Your task to perform on an android device: Open network settings Image 0: 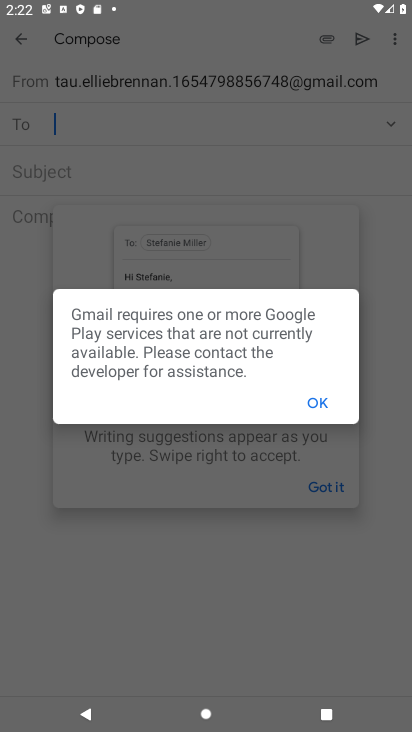
Step 0: press home button
Your task to perform on an android device: Open network settings Image 1: 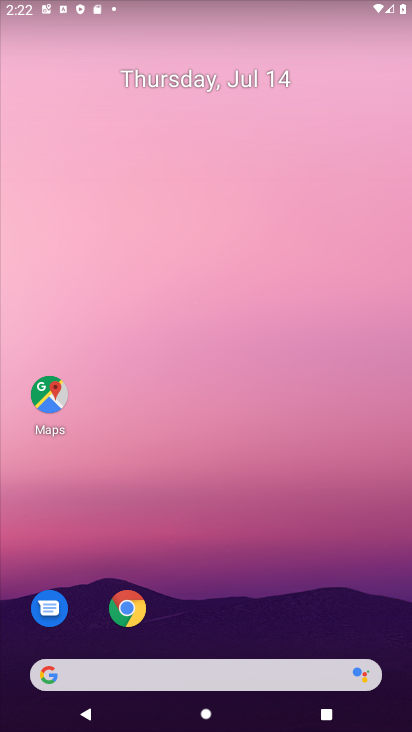
Step 1: drag from (385, 621) to (344, 106)
Your task to perform on an android device: Open network settings Image 2: 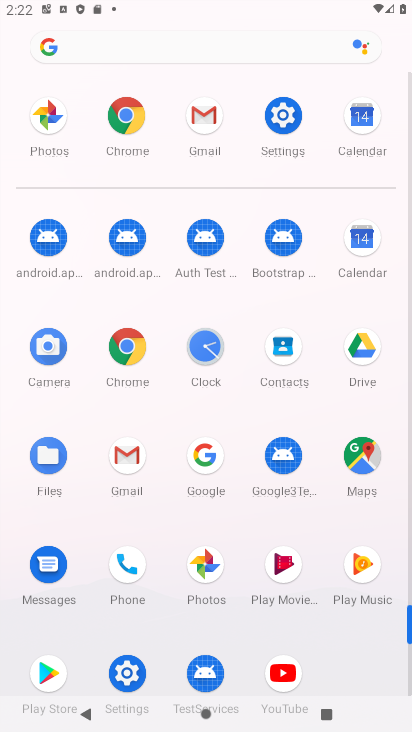
Step 2: click (127, 672)
Your task to perform on an android device: Open network settings Image 3: 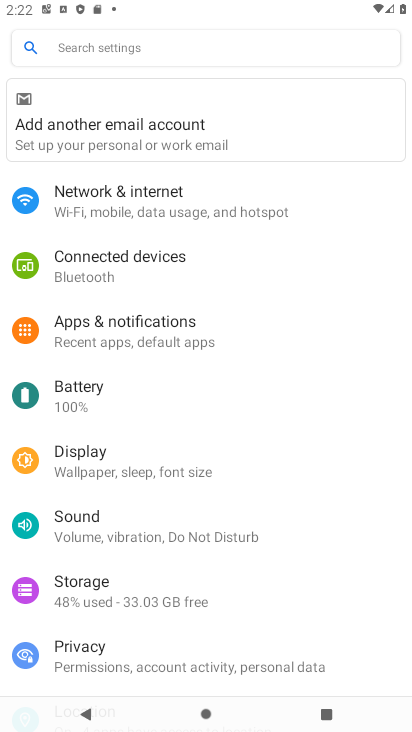
Step 3: click (113, 194)
Your task to perform on an android device: Open network settings Image 4: 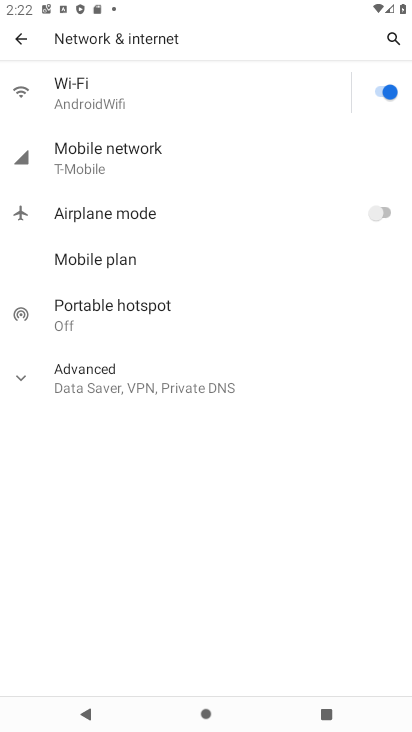
Step 4: click (84, 155)
Your task to perform on an android device: Open network settings Image 5: 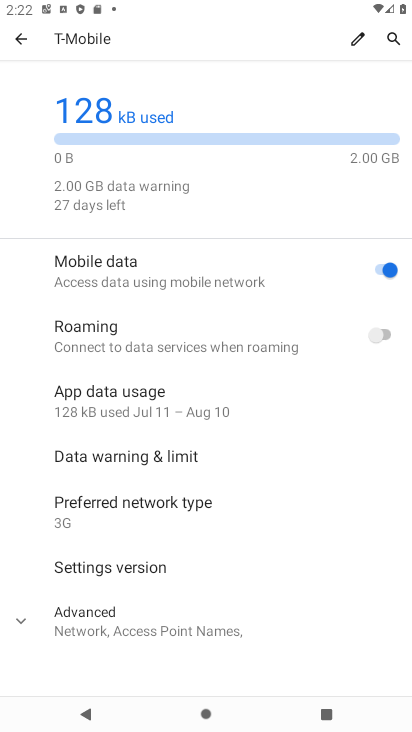
Step 5: click (19, 621)
Your task to perform on an android device: Open network settings Image 6: 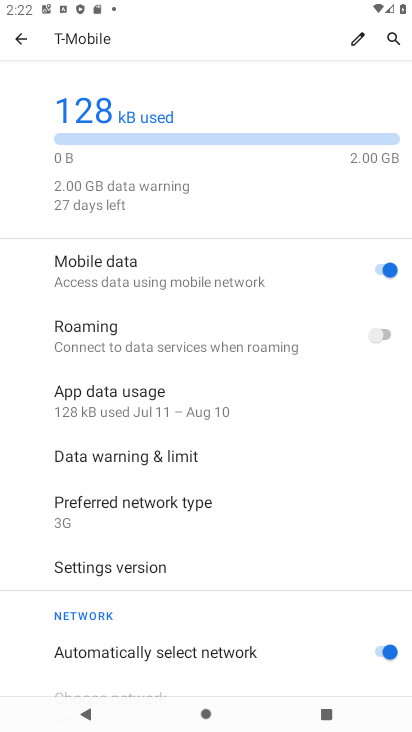
Step 6: task complete